Your task to perform on an android device: install app "ZOOM Cloud Meetings" Image 0: 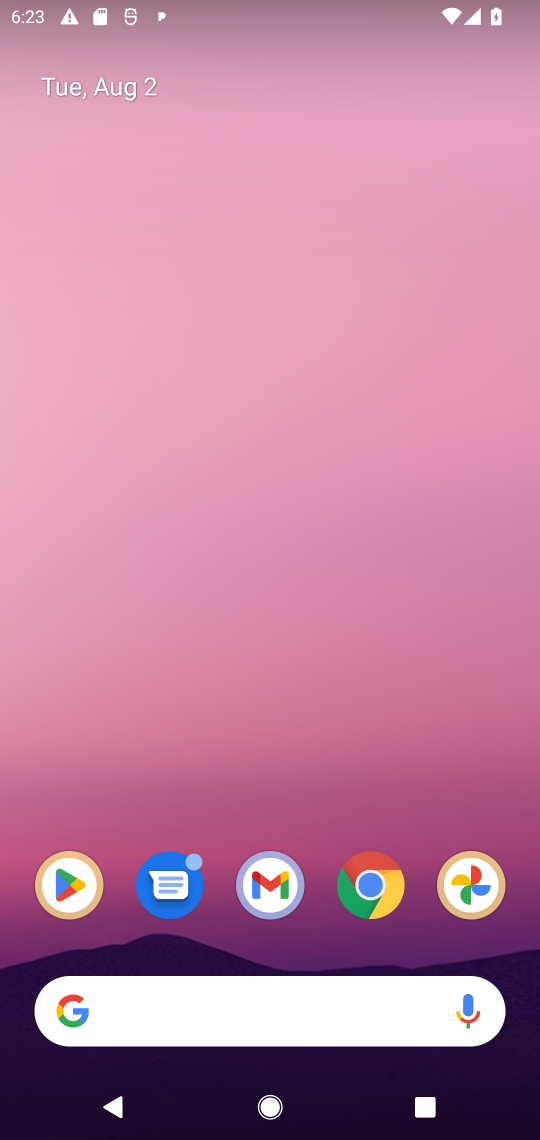
Step 0: press home button
Your task to perform on an android device: install app "ZOOM Cloud Meetings" Image 1: 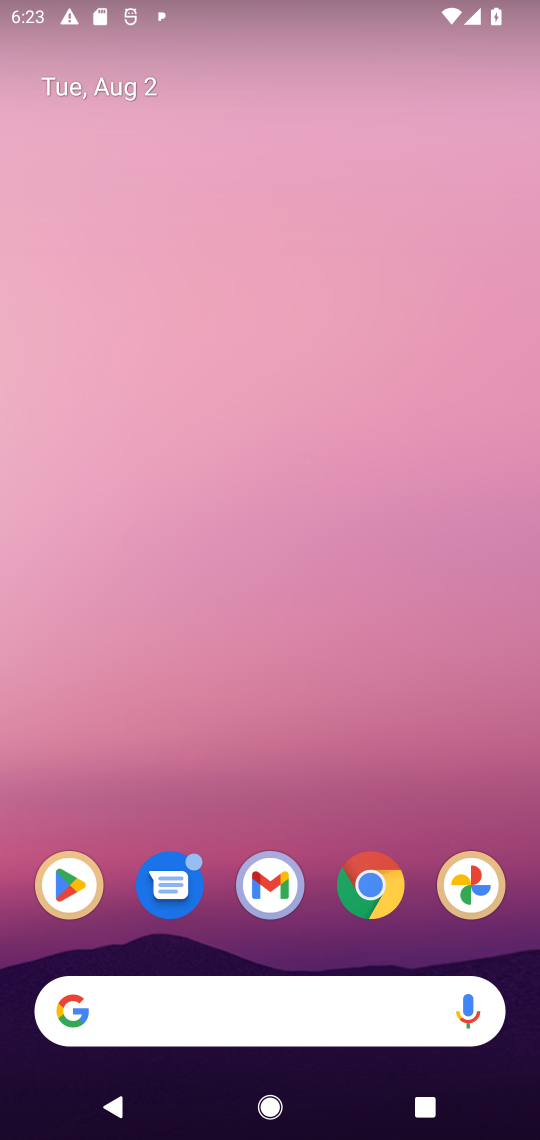
Step 1: drag from (432, 818) to (413, 55)
Your task to perform on an android device: install app "ZOOM Cloud Meetings" Image 2: 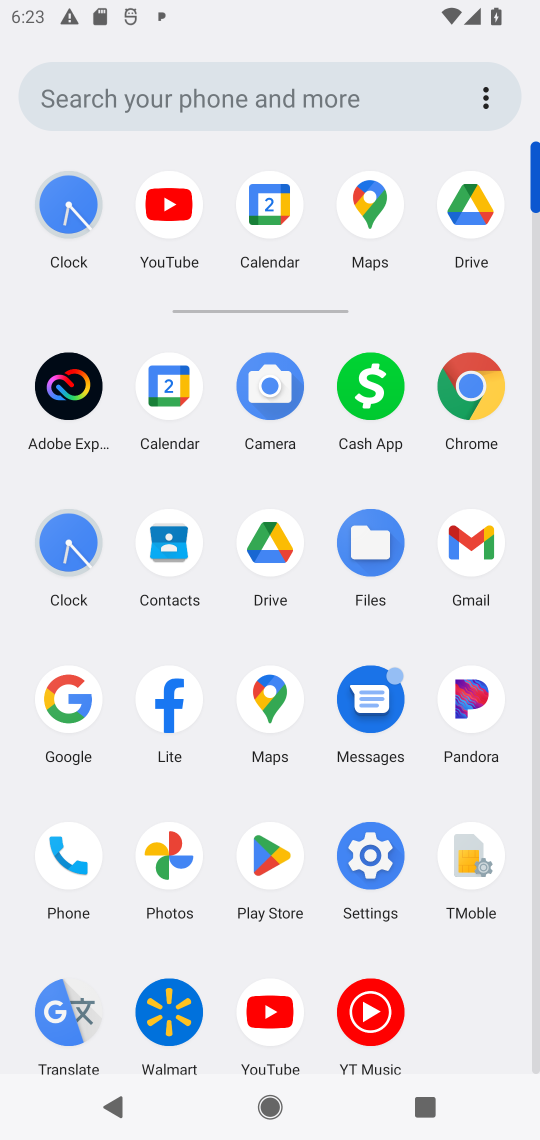
Step 2: click (265, 860)
Your task to perform on an android device: install app "ZOOM Cloud Meetings" Image 3: 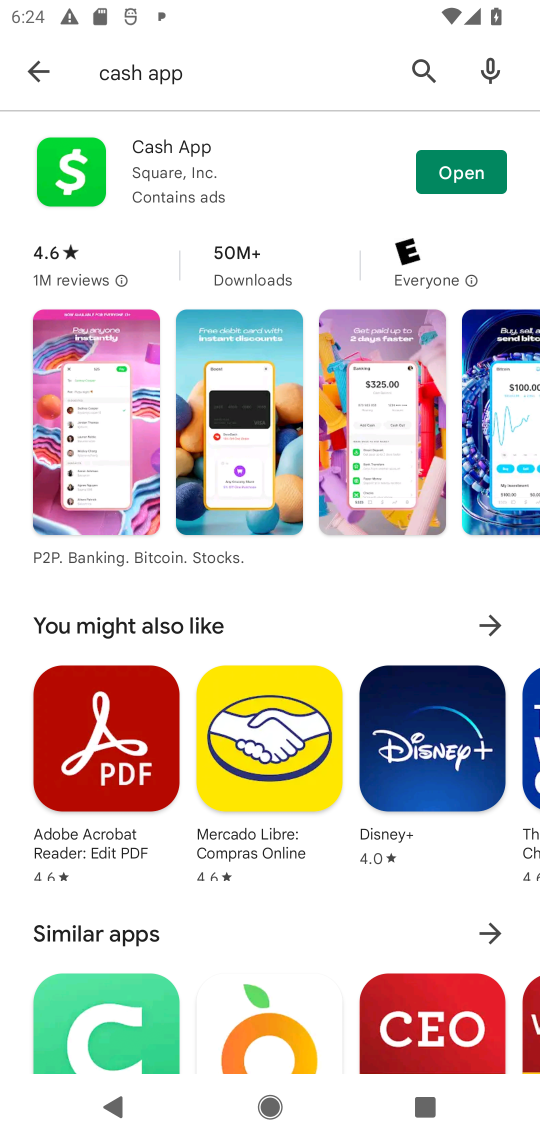
Step 3: click (414, 74)
Your task to perform on an android device: install app "ZOOM Cloud Meetings" Image 4: 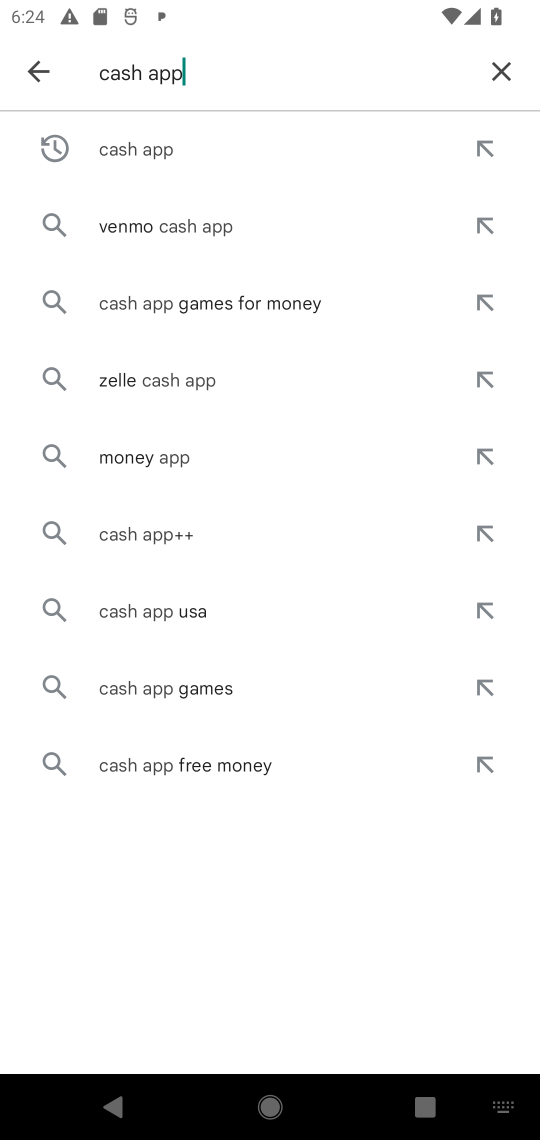
Step 4: click (512, 72)
Your task to perform on an android device: install app "ZOOM Cloud Meetings" Image 5: 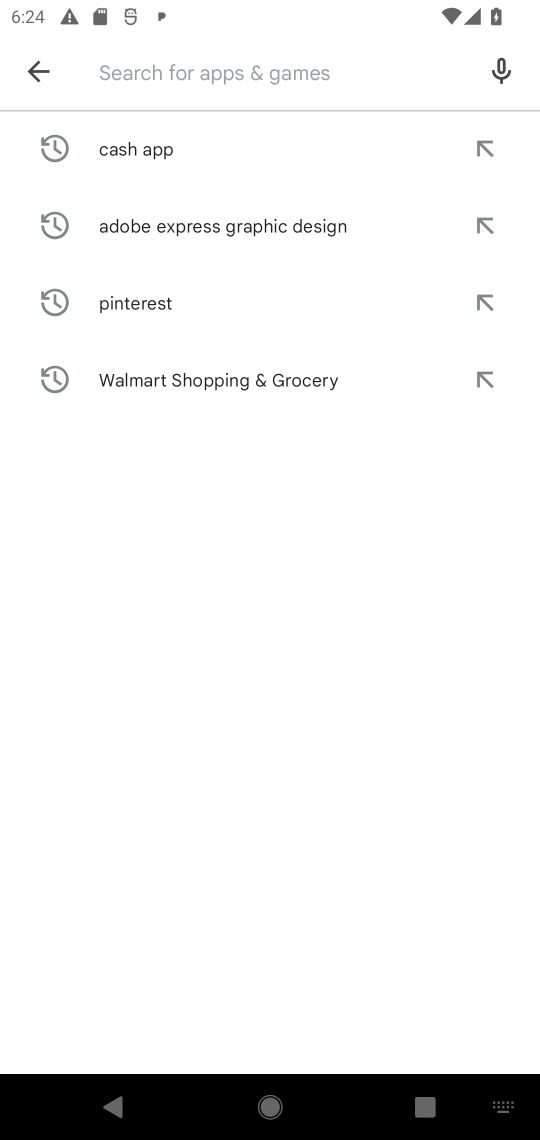
Step 5: click (302, 82)
Your task to perform on an android device: install app "ZOOM Cloud Meetings" Image 6: 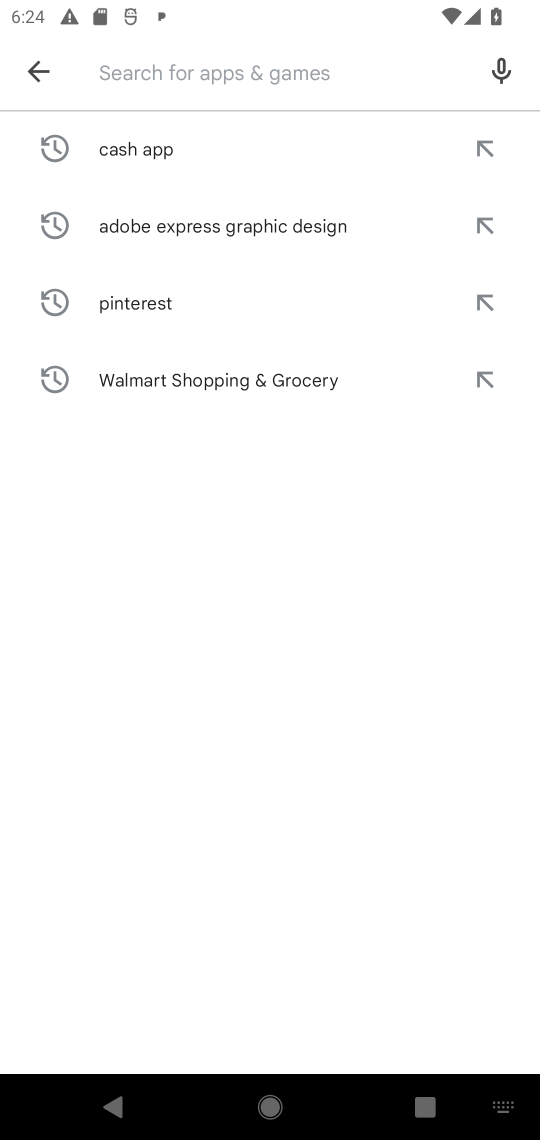
Step 6: type "ZOOM Cloud Meetings"
Your task to perform on an android device: install app "ZOOM Cloud Meetings" Image 7: 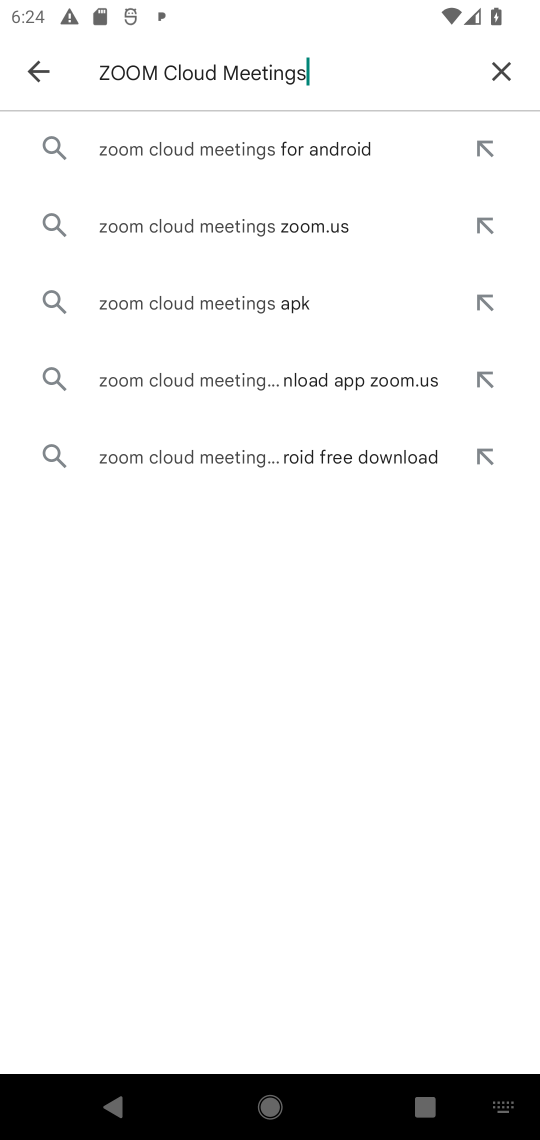
Step 7: click (249, 153)
Your task to perform on an android device: install app "ZOOM Cloud Meetings" Image 8: 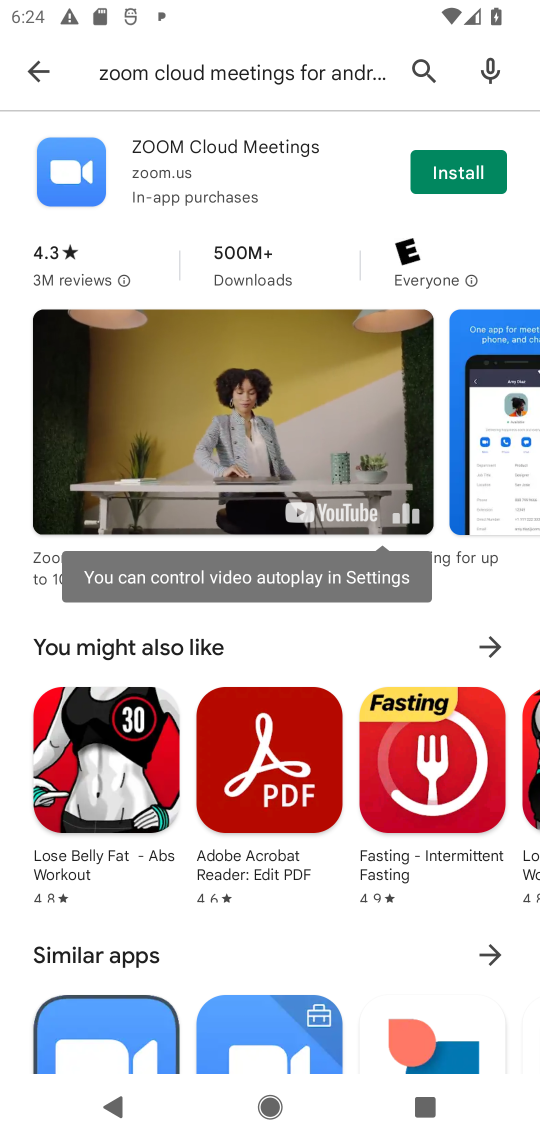
Step 8: click (466, 180)
Your task to perform on an android device: install app "ZOOM Cloud Meetings" Image 9: 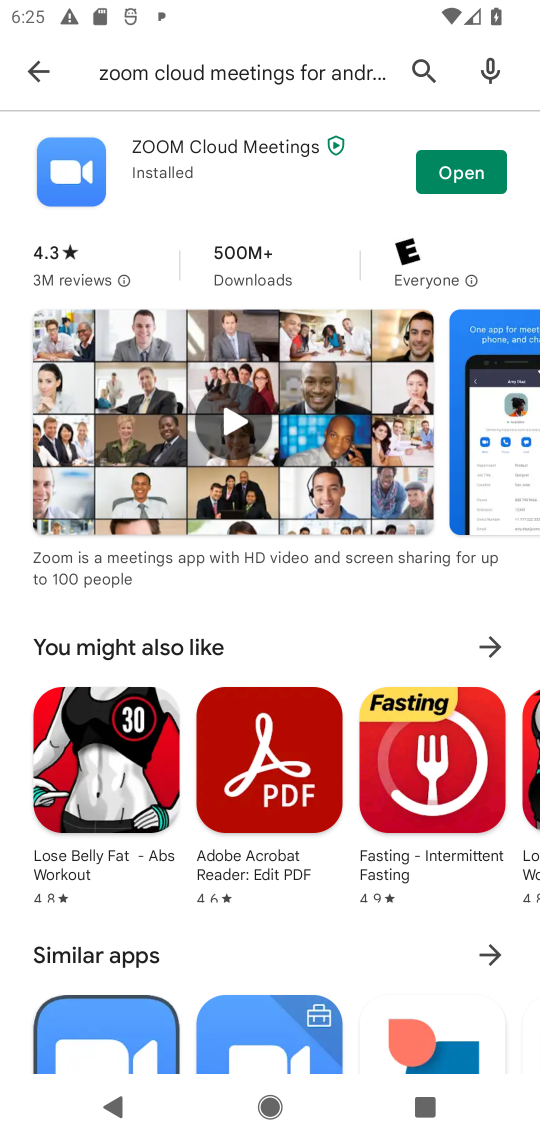
Step 9: task complete